Your task to perform on an android device: change the clock display to digital Image 0: 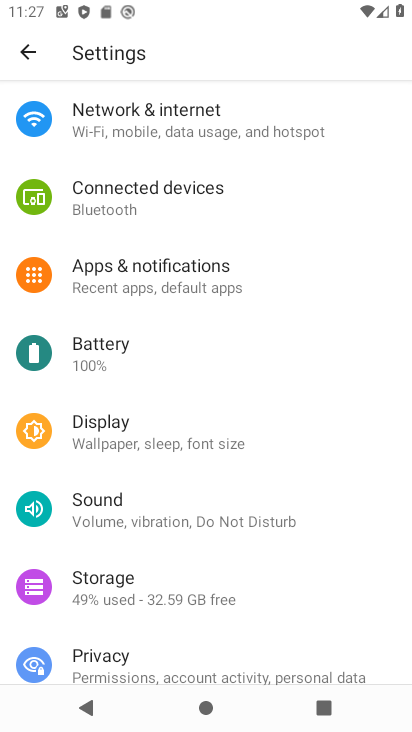
Step 0: press home button
Your task to perform on an android device: change the clock display to digital Image 1: 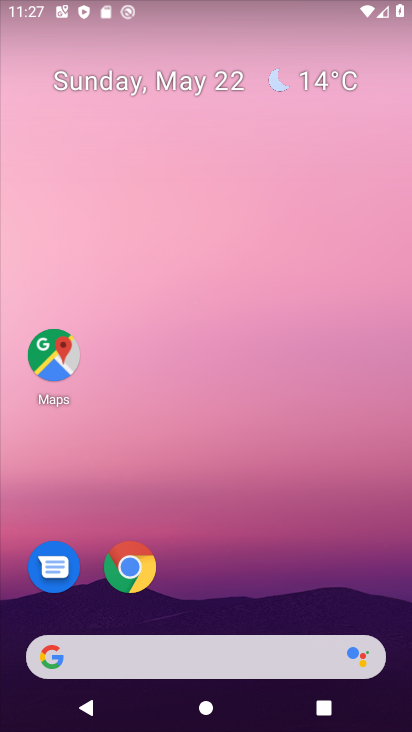
Step 1: drag from (249, 597) to (246, 180)
Your task to perform on an android device: change the clock display to digital Image 2: 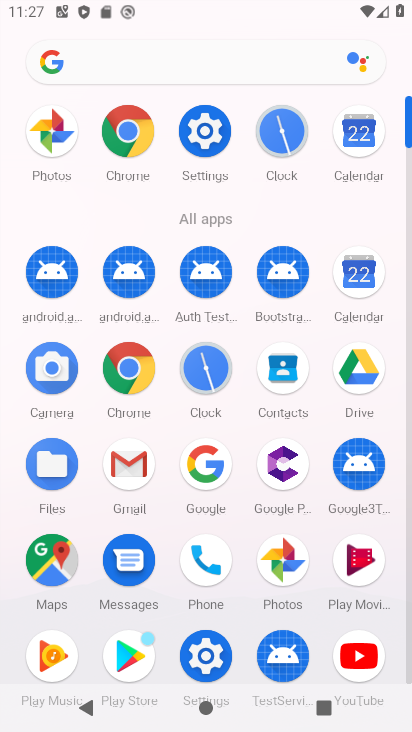
Step 2: click (212, 371)
Your task to perform on an android device: change the clock display to digital Image 3: 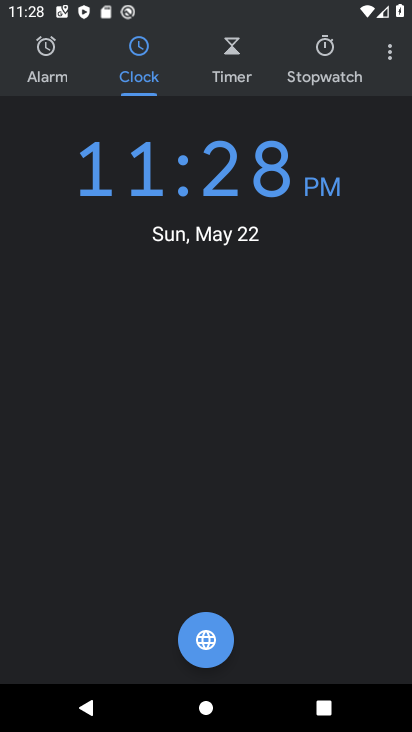
Step 3: click (395, 54)
Your task to perform on an android device: change the clock display to digital Image 4: 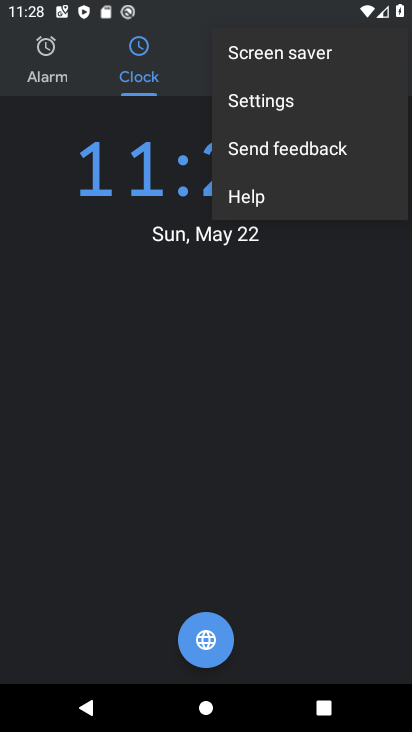
Step 4: click (329, 107)
Your task to perform on an android device: change the clock display to digital Image 5: 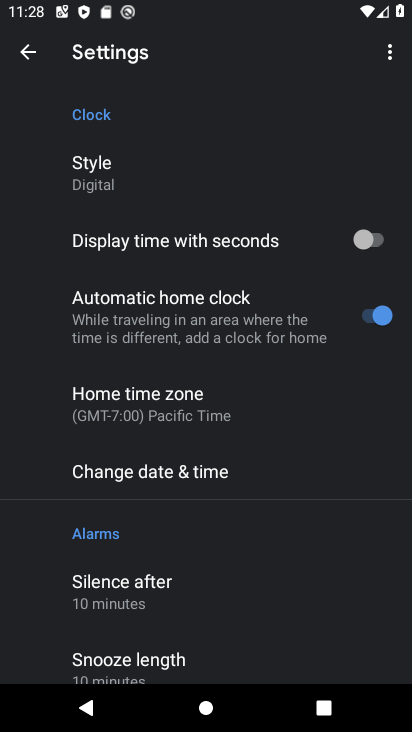
Step 5: click (118, 181)
Your task to perform on an android device: change the clock display to digital Image 6: 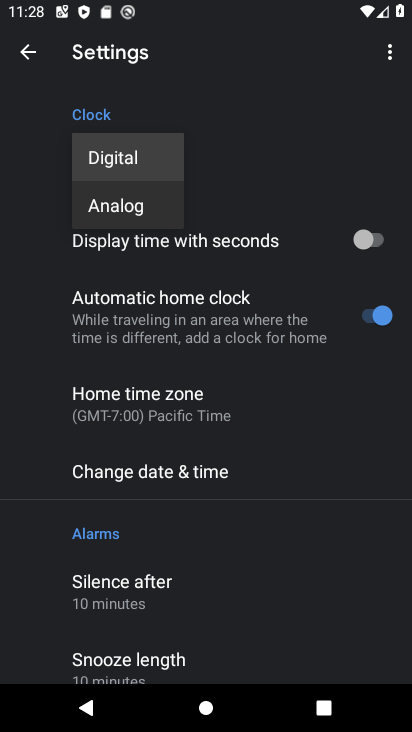
Step 6: task complete